Your task to perform on an android device: Show me popular videos on Youtube Image 0: 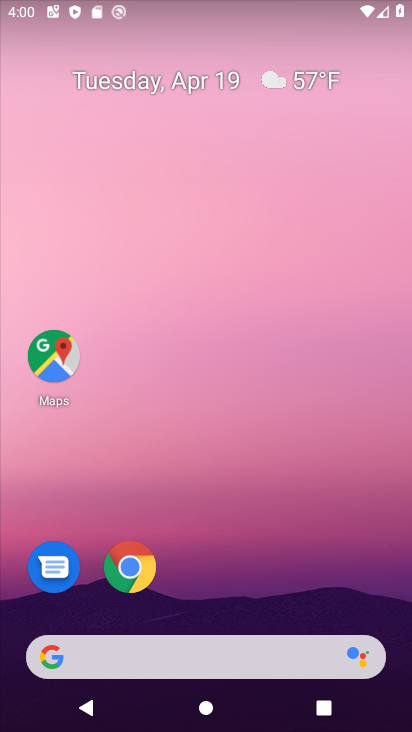
Step 0: drag from (266, 395) to (344, 160)
Your task to perform on an android device: Show me popular videos on Youtube Image 1: 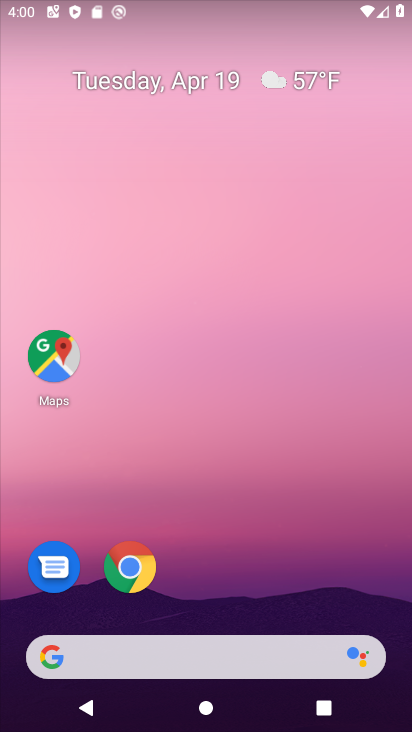
Step 1: drag from (237, 598) to (317, 148)
Your task to perform on an android device: Show me popular videos on Youtube Image 2: 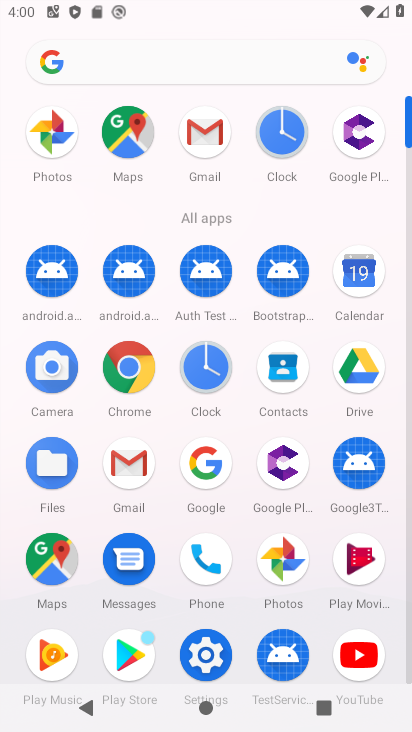
Step 2: click (371, 659)
Your task to perform on an android device: Show me popular videos on Youtube Image 3: 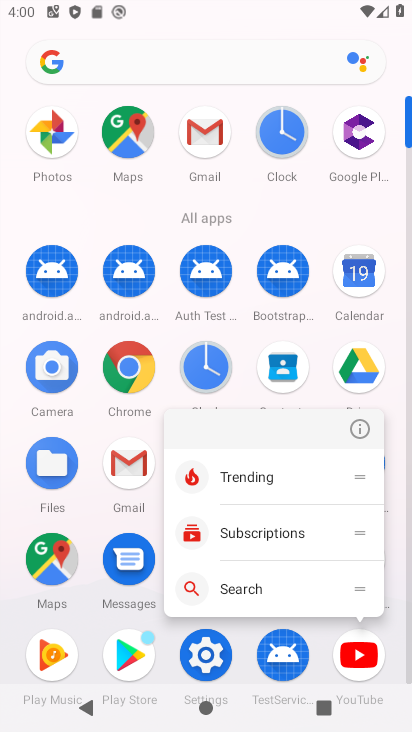
Step 3: click (363, 664)
Your task to perform on an android device: Show me popular videos on Youtube Image 4: 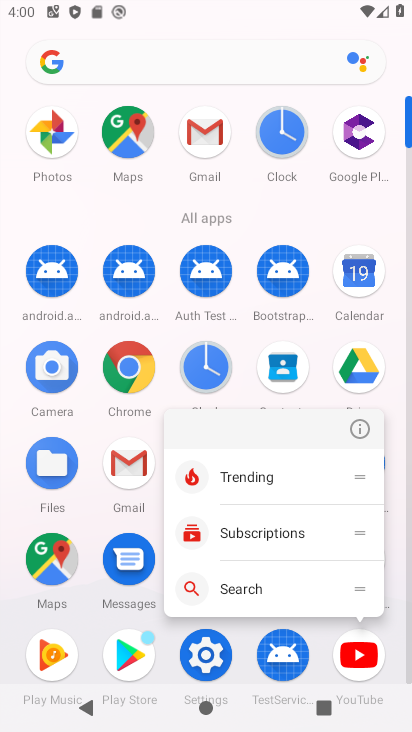
Step 4: click (353, 666)
Your task to perform on an android device: Show me popular videos on Youtube Image 5: 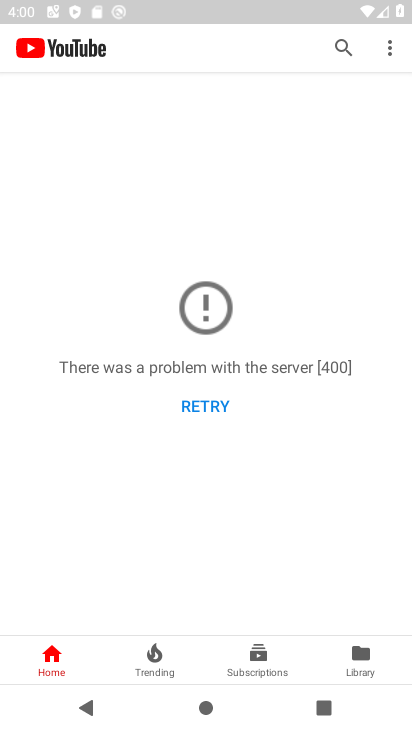
Step 5: click (356, 669)
Your task to perform on an android device: Show me popular videos on Youtube Image 6: 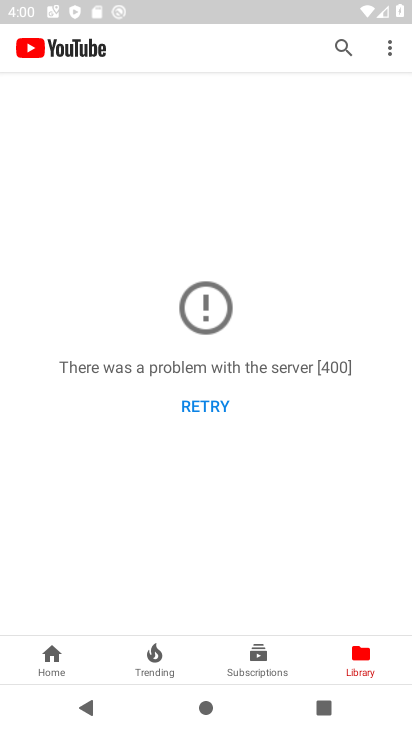
Step 6: task complete